Your task to perform on an android device: turn off javascript in the chrome app Image 0: 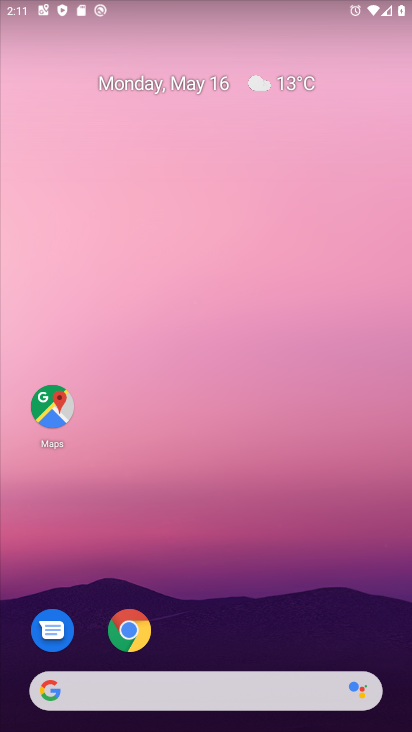
Step 0: click (130, 632)
Your task to perform on an android device: turn off javascript in the chrome app Image 1: 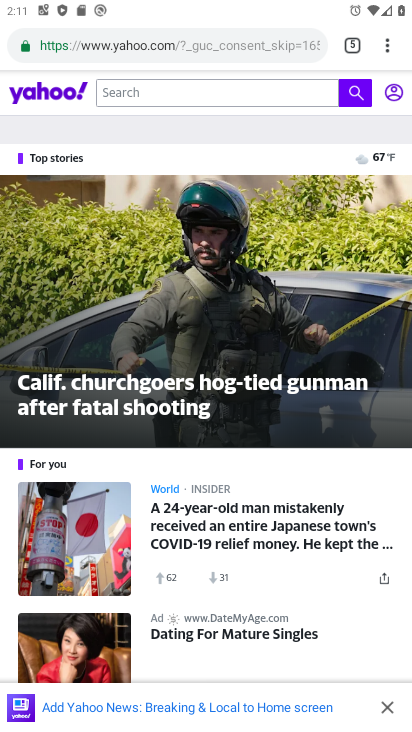
Step 1: click (385, 35)
Your task to perform on an android device: turn off javascript in the chrome app Image 2: 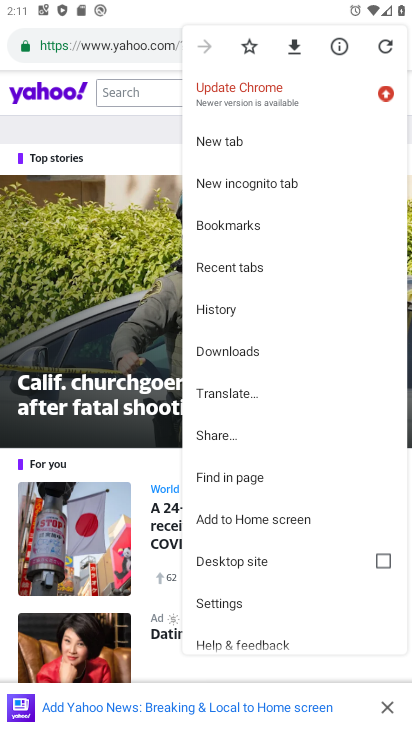
Step 2: drag from (292, 596) to (296, 233)
Your task to perform on an android device: turn off javascript in the chrome app Image 3: 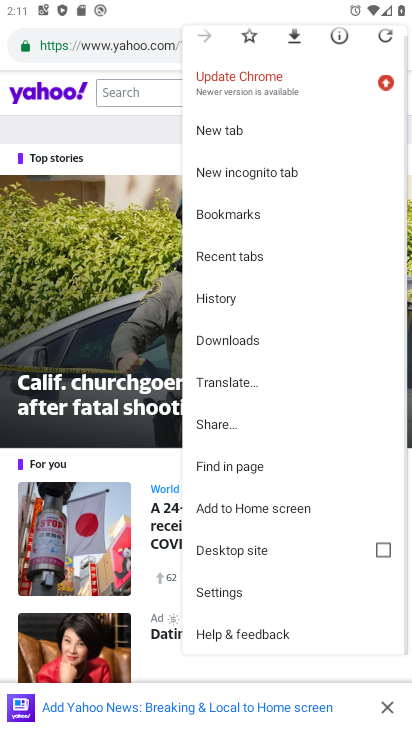
Step 3: click (315, 582)
Your task to perform on an android device: turn off javascript in the chrome app Image 4: 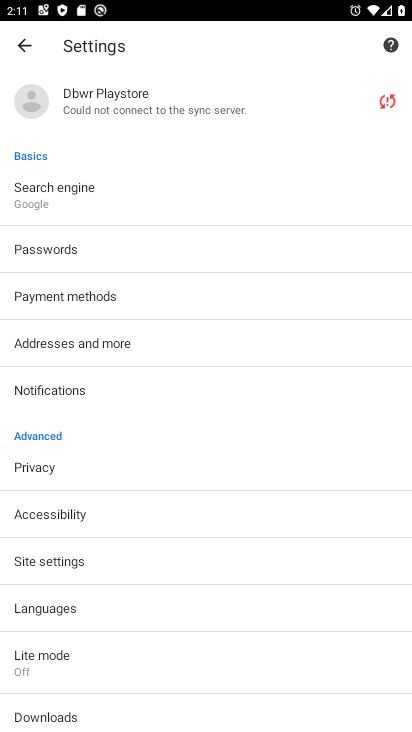
Step 4: drag from (242, 620) to (255, 249)
Your task to perform on an android device: turn off javascript in the chrome app Image 5: 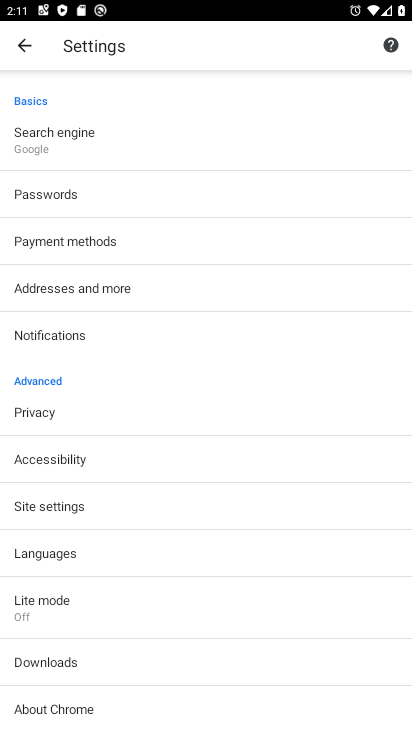
Step 5: click (265, 503)
Your task to perform on an android device: turn off javascript in the chrome app Image 6: 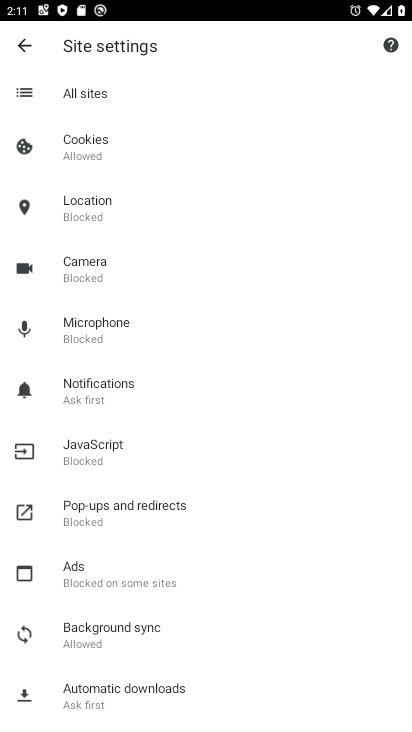
Step 6: click (142, 451)
Your task to perform on an android device: turn off javascript in the chrome app Image 7: 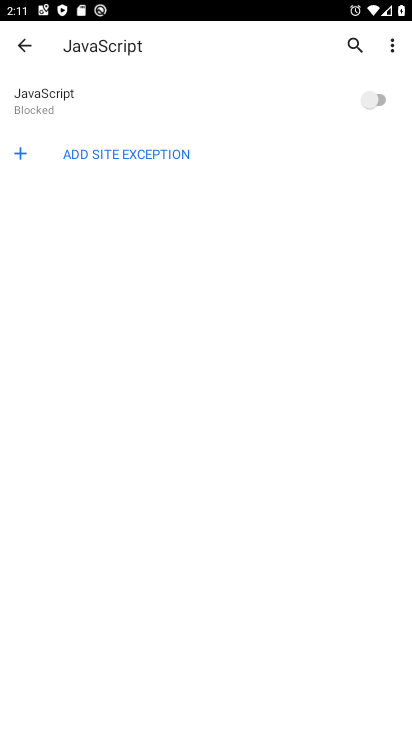
Step 7: task complete